Your task to perform on an android device: See recent photos Image 0: 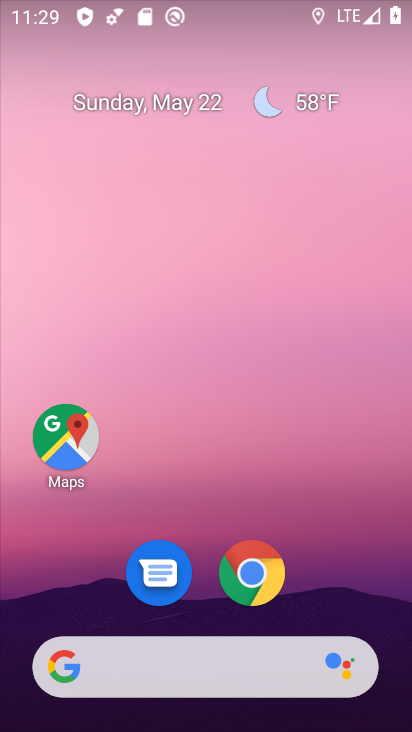
Step 0: drag from (206, 590) to (181, 0)
Your task to perform on an android device: See recent photos Image 1: 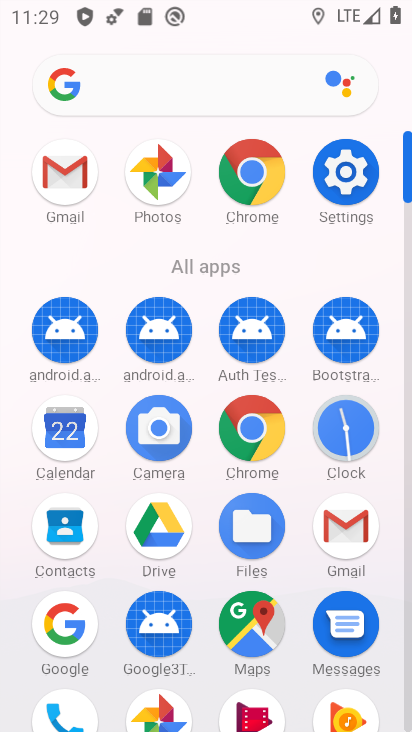
Step 1: drag from (216, 587) to (212, 264)
Your task to perform on an android device: See recent photos Image 2: 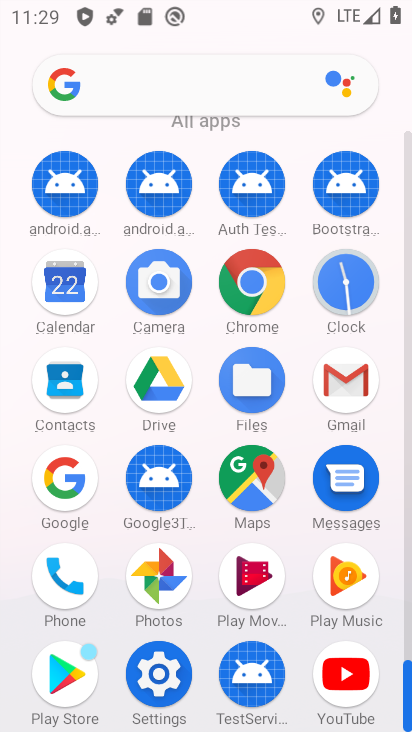
Step 2: click (149, 574)
Your task to perform on an android device: See recent photos Image 3: 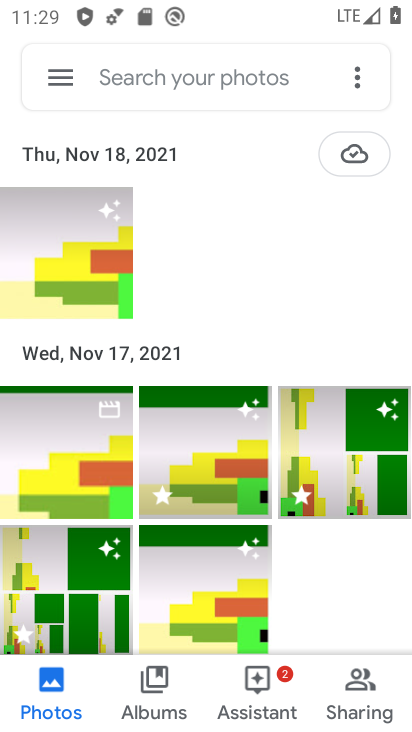
Step 3: task complete